Your task to perform on an android device: change timer sound Image 0: 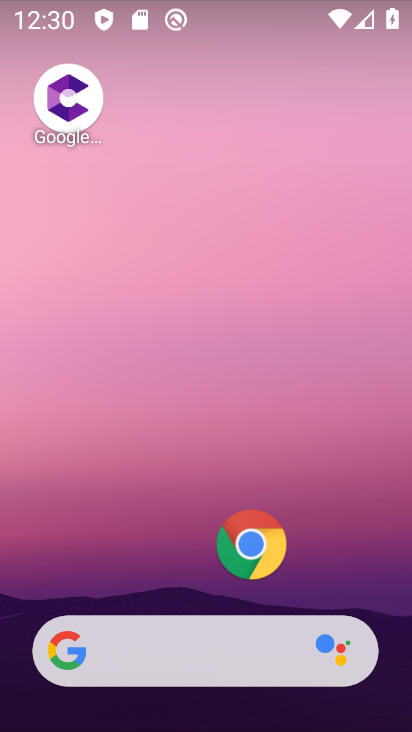
Step 0: drag from (128, 567) to (151, 163)
Your task to perform on an android device: change timer sound Image 1: 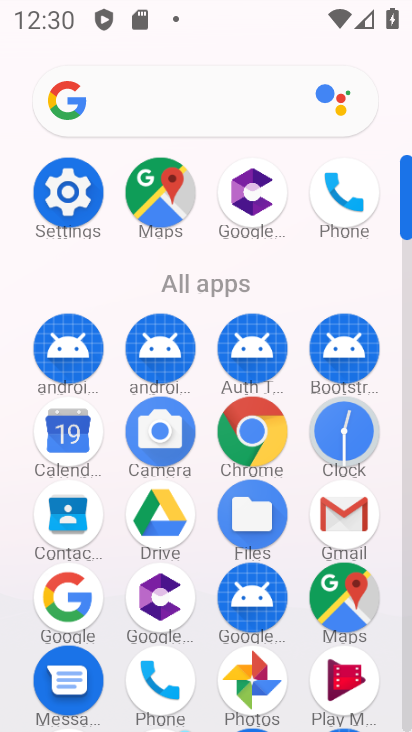
Step 1: click (346, 431)
Your task to perform on an android device: change timer sound Image 2: 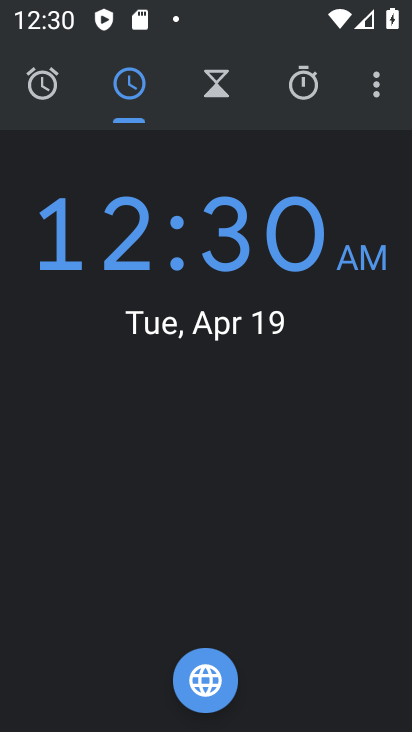
Step 2: click (375, 88)
Your task to perform on an android device: change timer sound Image 3: 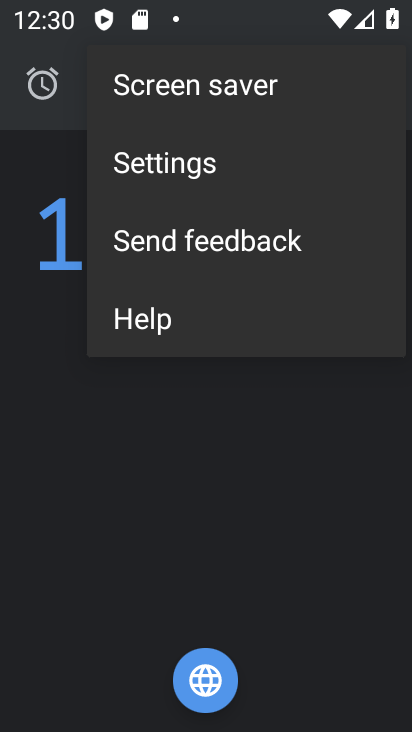
Step 3: click (198, 168)
Your task to perform on an android device: change timer sound Image 4: 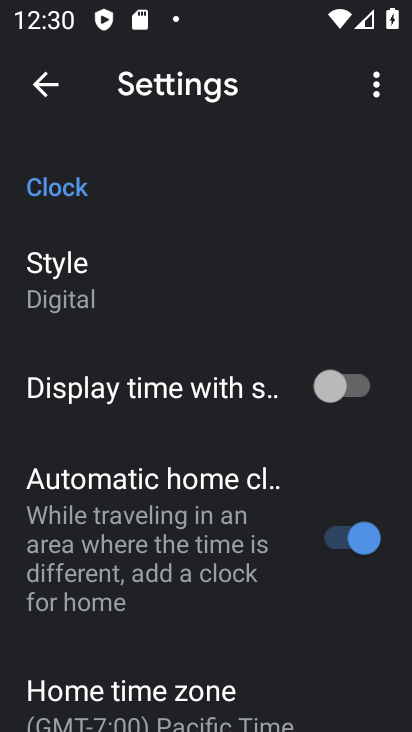
Step 4: drag from (178, 502) to (253, 136)
Your task to perform on an android device: change timer sound Image 5: 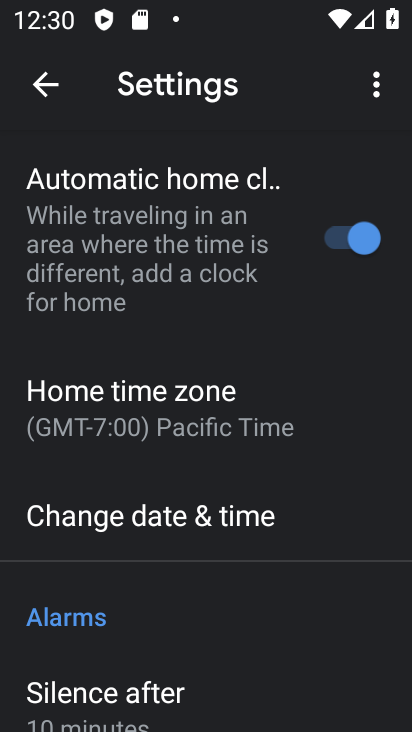
Step 5: drag from (123, 643) to (258, 76)
Your task to perform on an android device: change timer sound Image 6: 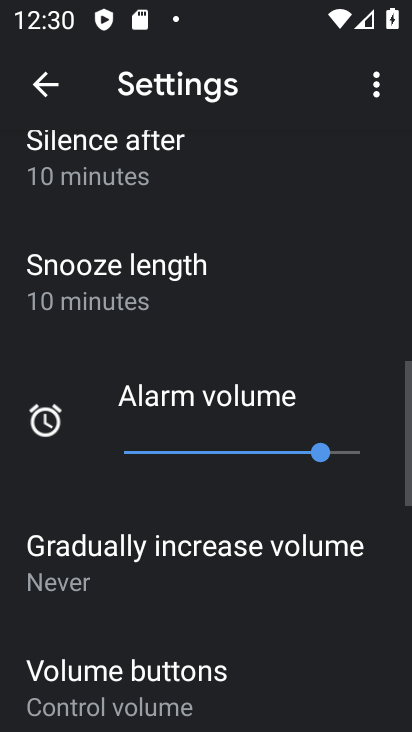
Step 6: drag from (133, 657) to (260, 188)
Your task to perform on an android device: change timer sound Image 7: 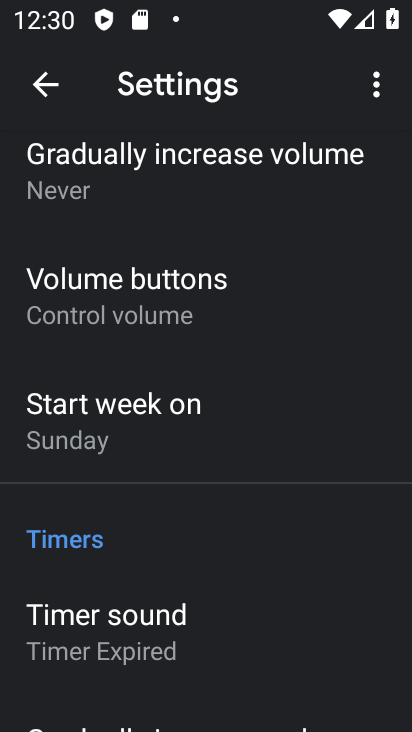
Step 7: click (94, 629)
Your task to perform on an android device: change timer sound Image 8: 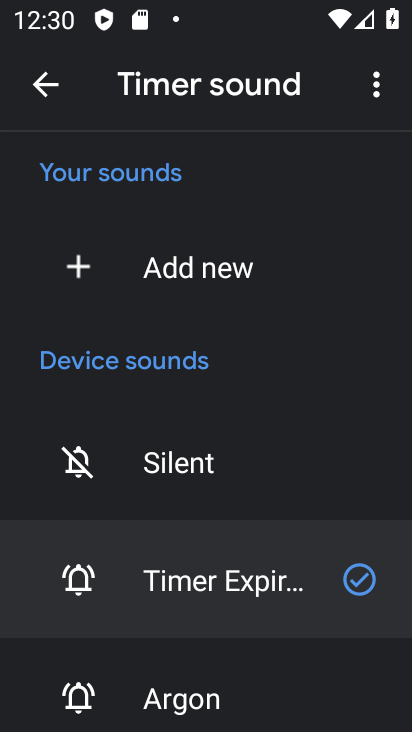
Step 8: drag from (259, 677) to (312, 107)
Your task to perform on an android device: change timer sound Image 9: 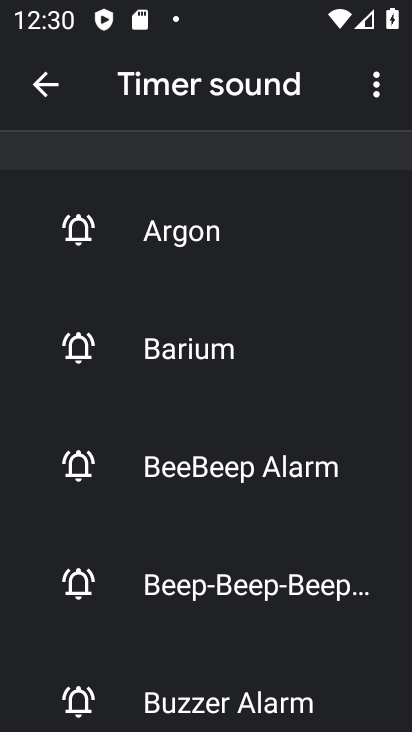
Step 9: click (178, 694)
Your task to perform on an android device: change timer sound Image 10: 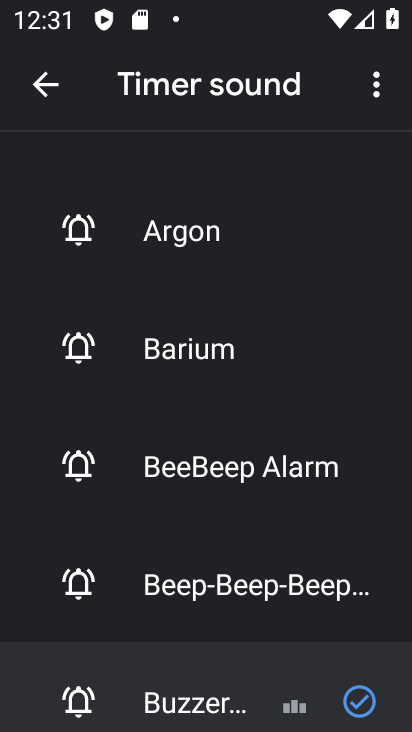
Step 10: task complete